Your task to perform on an android device: Open the phone app and click the voicemail tab. Image 0: 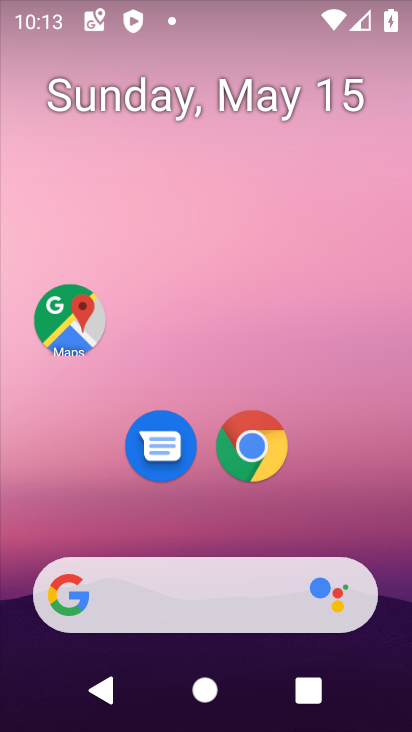
Step 0: drag from (336, 491) to (298, 91)
Your task to perform on an android device: Open the phone app and click the voicemail tab. Image 1: 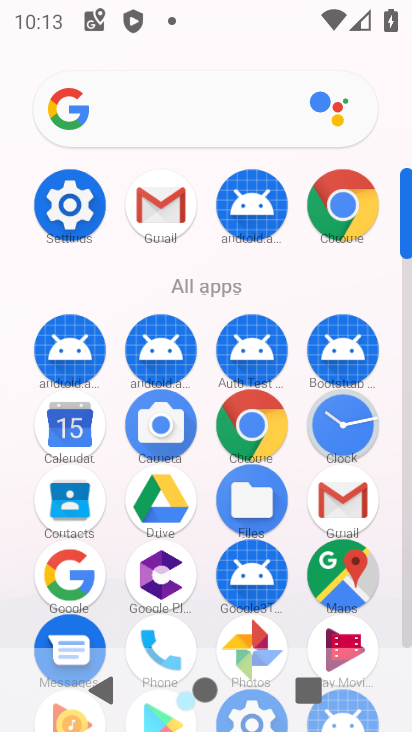
Step 1: click (151, 644)
Your task to perform on an android device: Open the phone app and click the voicemail tab. Image 2: 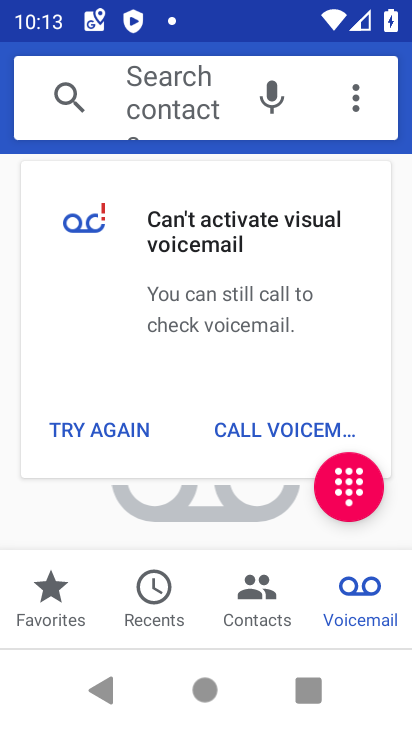
Step 2: click (357, 605)
Your task to perform on an android device: Open the phone app and click the voicemail tab. Image 3: 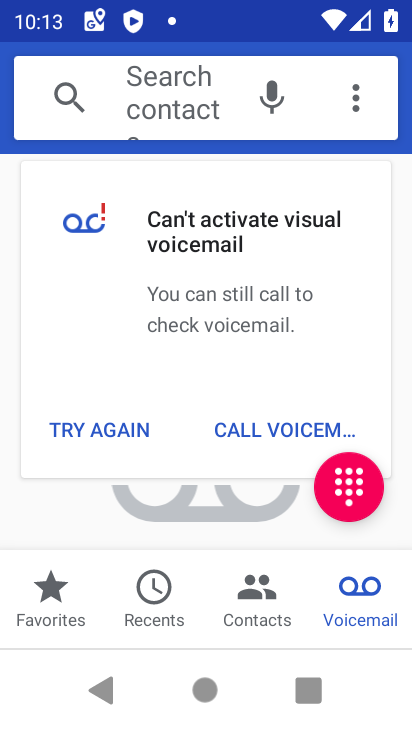
Step 3: task complete